Your task to perform on an android device: toggle data saver in the chrome app Image 0: 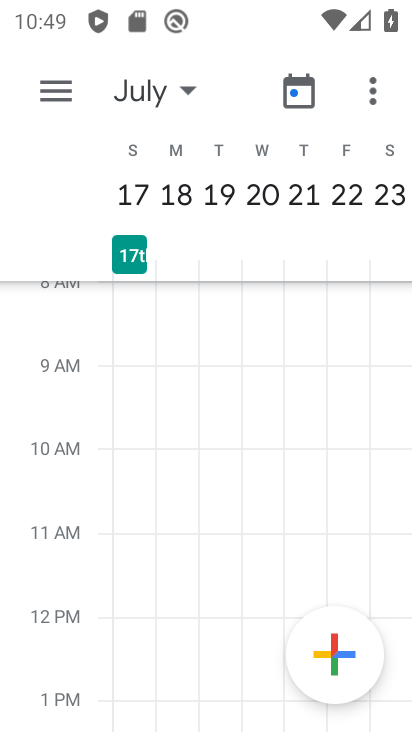
Step 0: press home button
Your task to perform on an android device: toggle data saver in the chrome app Image 1: 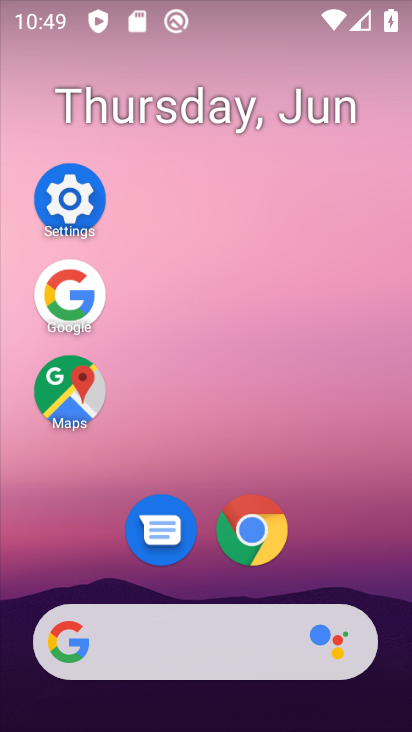
Step 1: click (252, 544)
Your task to perform on an android device: toggle data saver in the chrome app Image 2: 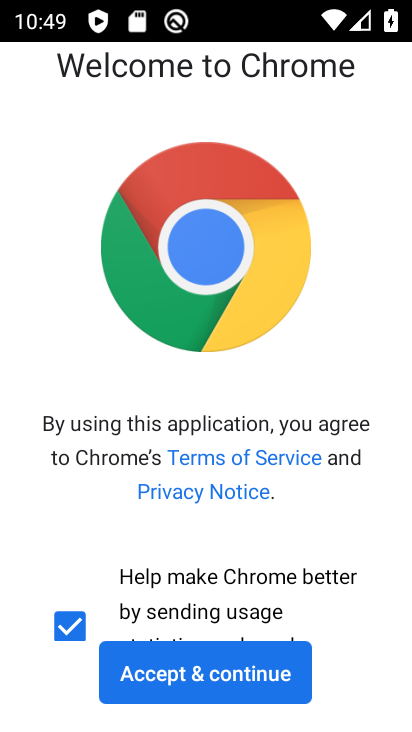
Step 2: click (291, 655)
Your task to perform on an android device: toggle data saver in the chrome app Image 3: 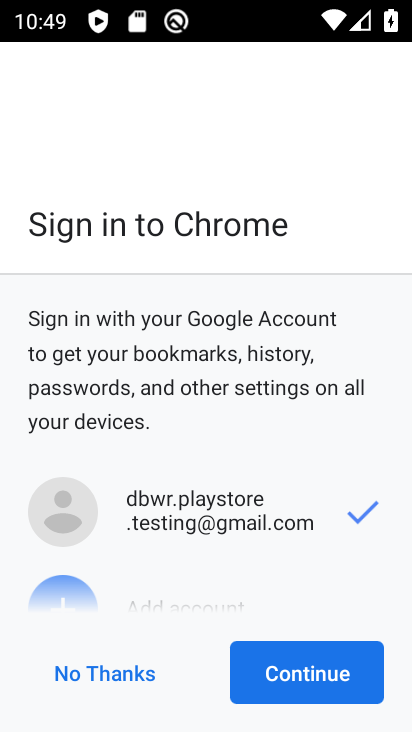
Step 3: click (318, 676)
Your task to perform on an android device: toggle data saver in the chrome app Image 4: 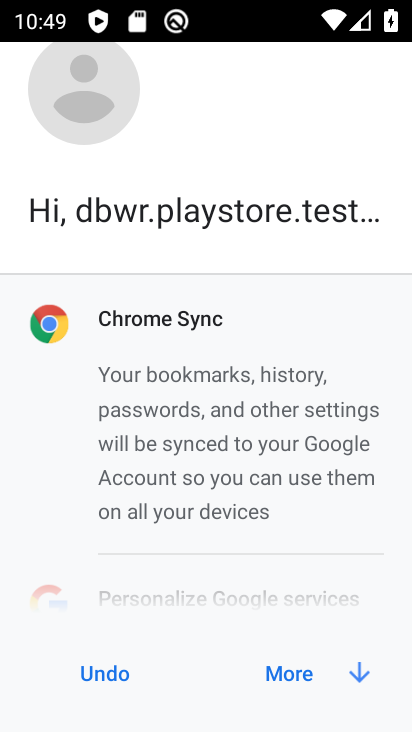
Step 4: click (322, 676)
Your task to perform on an android device: toggle data saver in the chrome app Image 5: 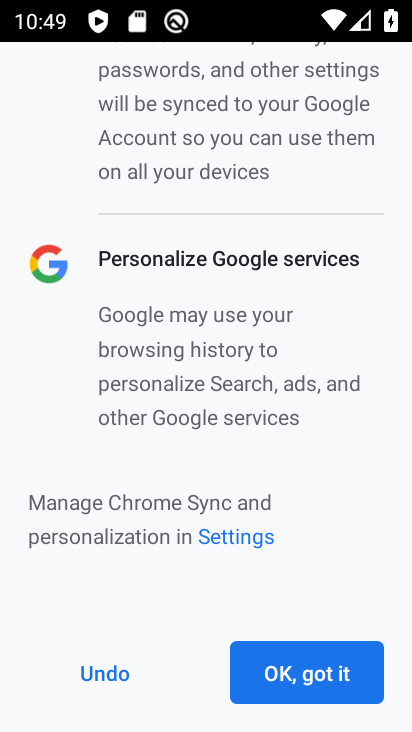
Step 5: click (322, 676)
Your task to perform on an android device: toggle data saver in the chrome app Image 6: 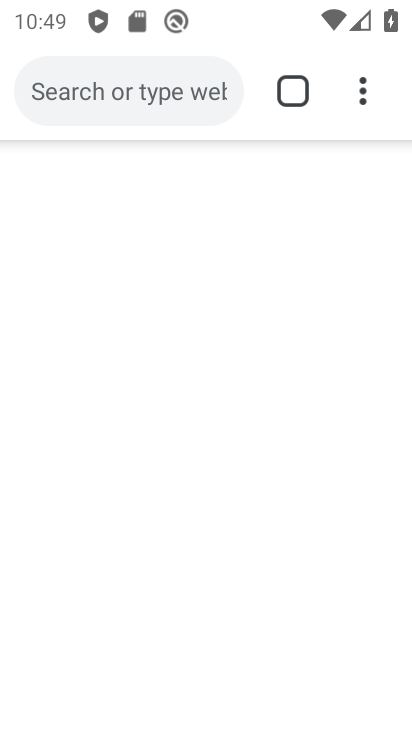
Step 6: click (367, 93)
Your task to perform on an android device: toggle data saver in the chrome app Image 7: 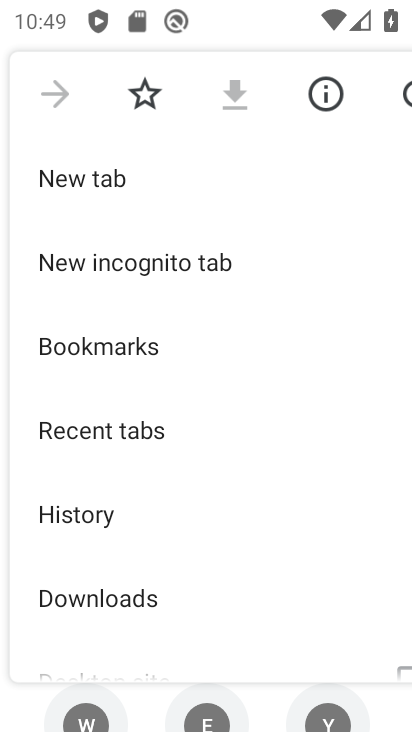
Step 7: drag from (219, 543) to (289, 148)
Your task to perform on an android device: toggle data saver in the chrome app Image 8: 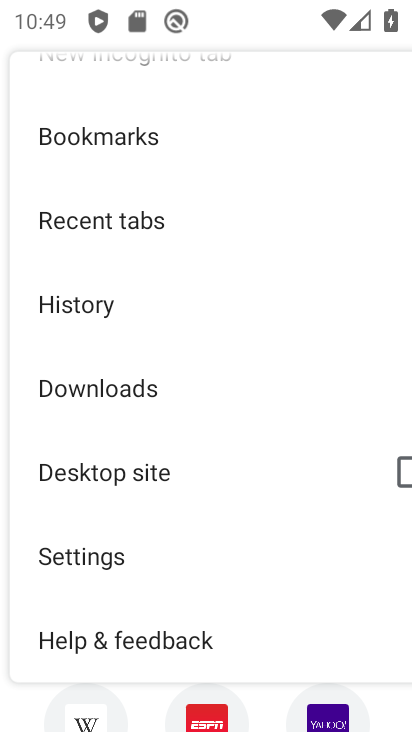
Step 8: click (124, 554)
Your task to perform on an android device: toggle data saver in the chrome app Image 9: 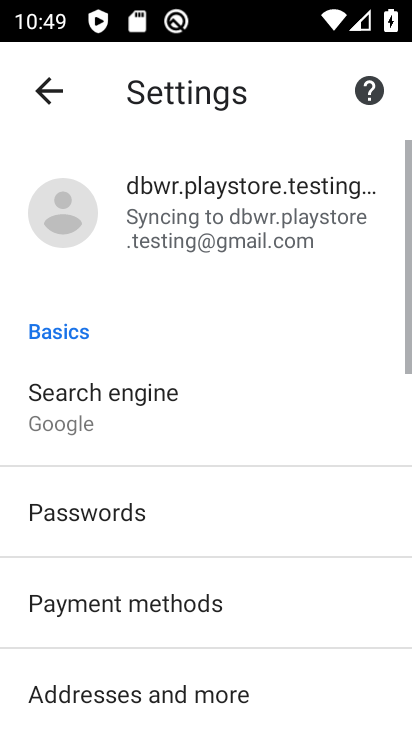
Step 9: drag from (146, 552) to (248, 191)
Your task to perform on an android device: toggle data saver in the chrome app Image 10: 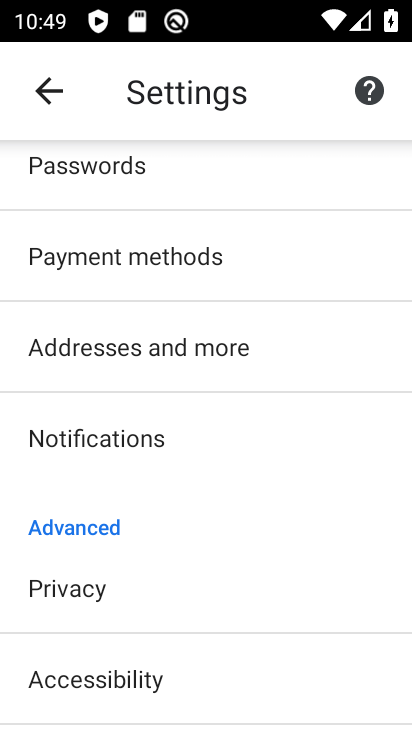
Step 10: drag from (227, 628) to (280, 243)
Your task to perform on an android device: toggle data saver in the chrome app Image 11: 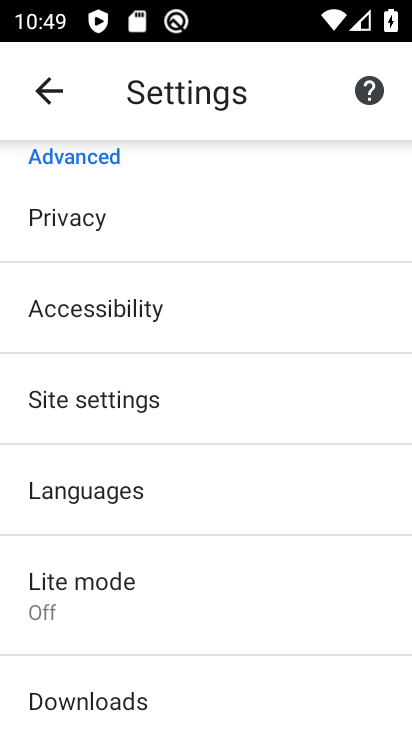
Step 11: click (231, 602)
Your task to perform on an android device: toggle data saver in the chrome app Image 12: 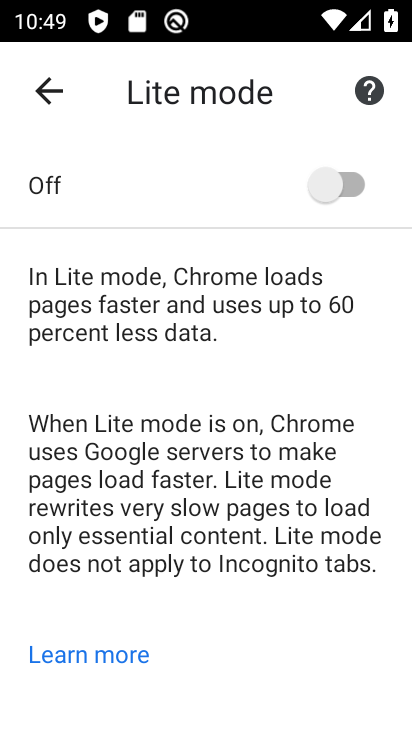
Step 12: click (364, 183)
Your task to perform on an android device: toggle data saver in the chrome app Image 13: 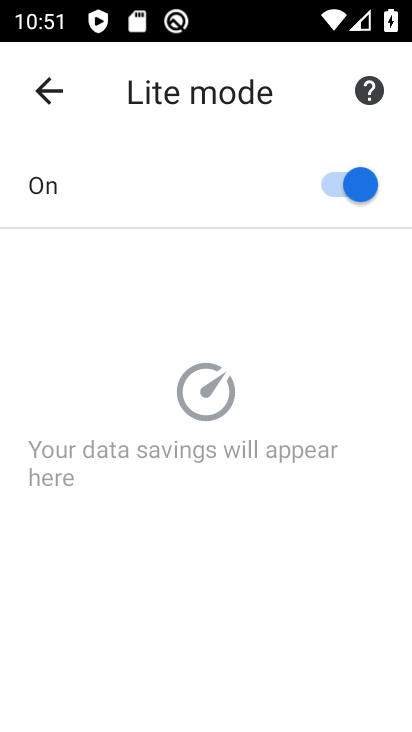
Step 13: task complete